Your task to perform on an android device: refresh tabs in the chrome app Image 0: 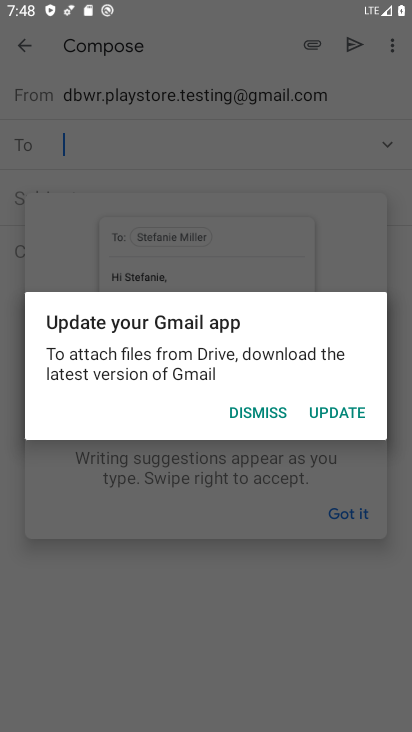
Step 0: press home button
Your task to perform on an android device: refresh tabs in the chrome app Image 1: 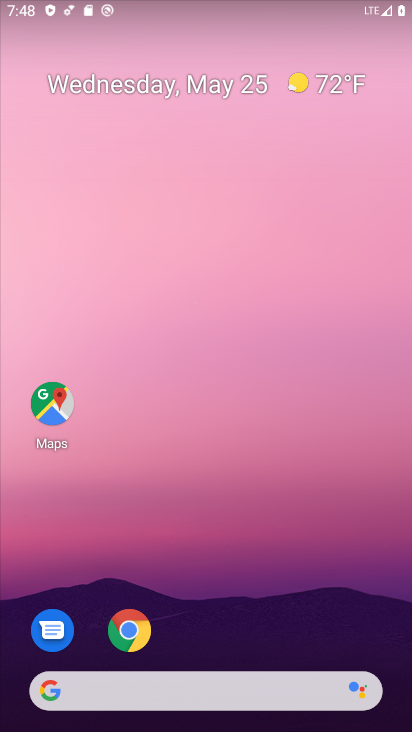
Step 1: click (119, 627)
Your task to perform on an android device: refresh tabs in the chrome app Image 2: 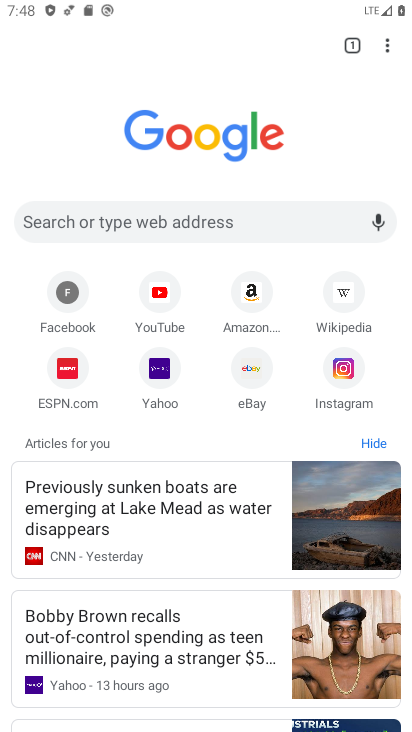
Step 2: click (381, 46)
Your task to perform on an android device: refresh tabs in the chrome app Image 3: 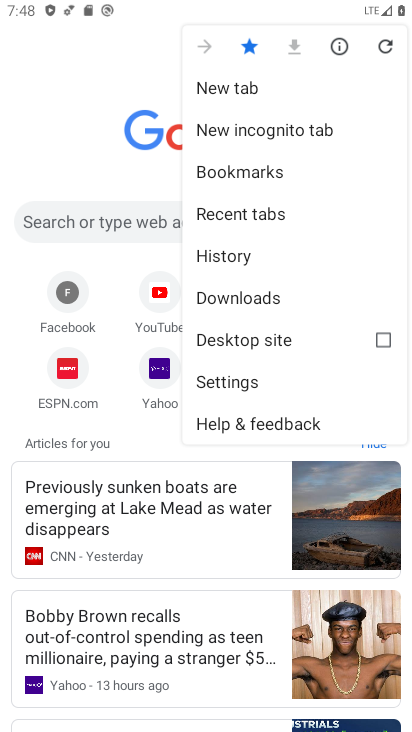
Step 3: click (376, 40)
Your task to perform on an android device: refresh tabs in the chrome app Image 4: 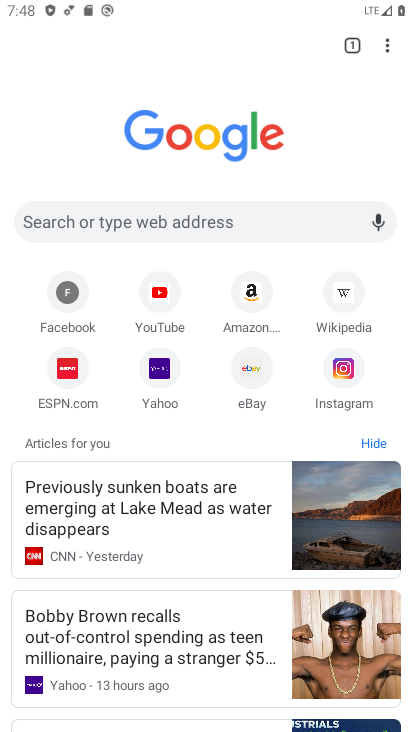
Step 4: task complete